Your task to perform on an android device: When is my next meeting? Image 0: 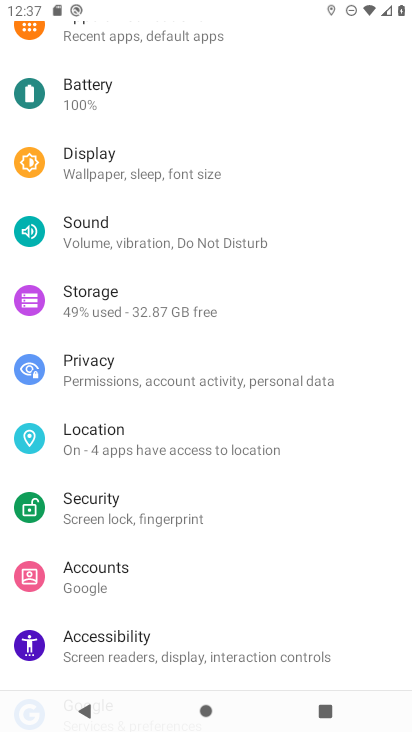
Step 0: press home button
Your task to perform on an android device: When is my next meeting? Image 1: 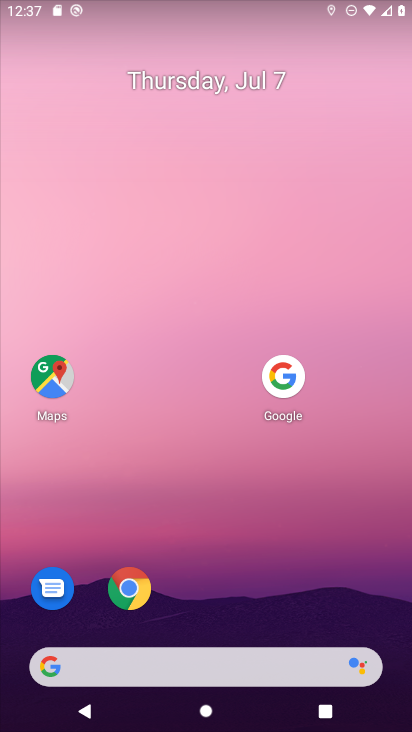
Step 1: drag from (319, 329) to (392, 103)
Your task to perform on an android device: When is my next meeting? Image 2: 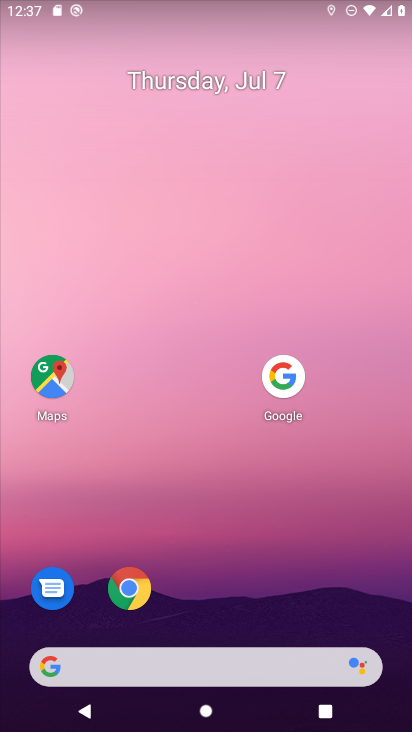
Step 2: drag from (171, 665) to (299, 31)
Your task to perform on an android device: When is my next meeting? Image 3: 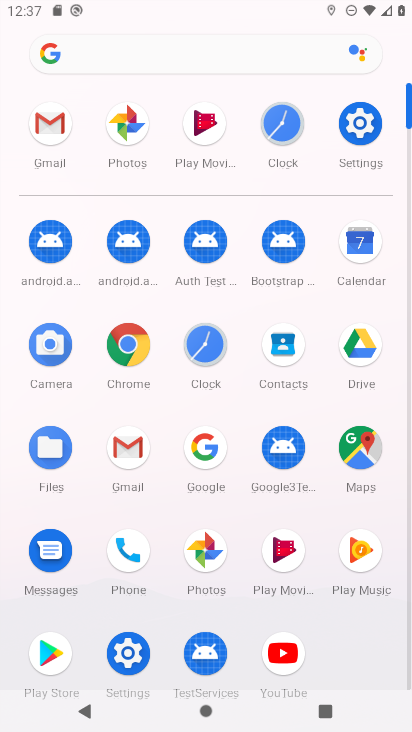
Step 3: click (368, 248)
Your task to perform on an android device: When is my next meeting? Image 4: 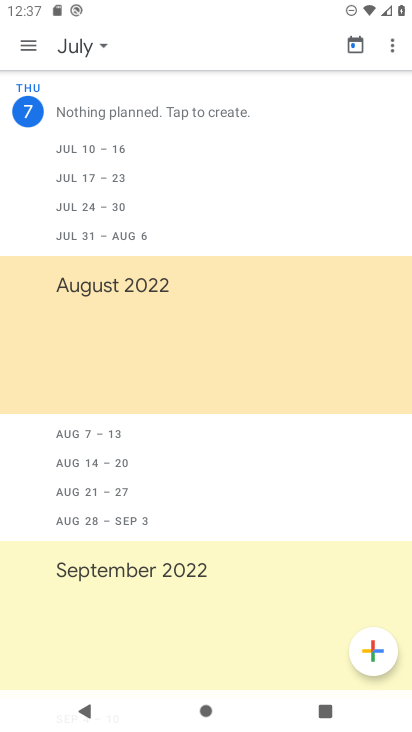
Step 4: task complete